Your task to perform on an android device: Show me popular videos on Youtube Image 0: 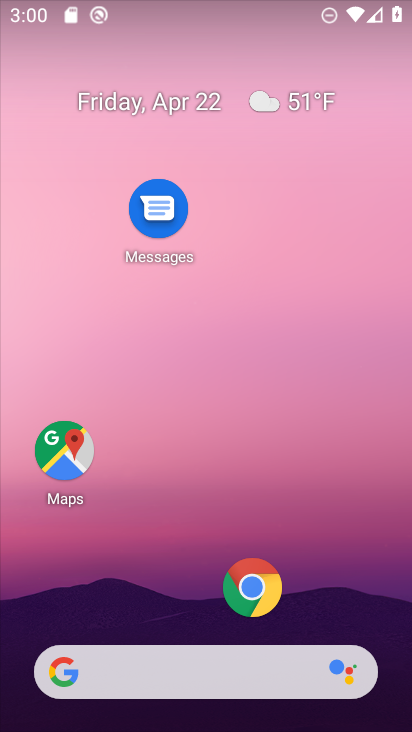
Step 0: drag from (199, 576) to (222, 157)
Your task to perform on an android device: Show me popular videos on Youtube Image 1: 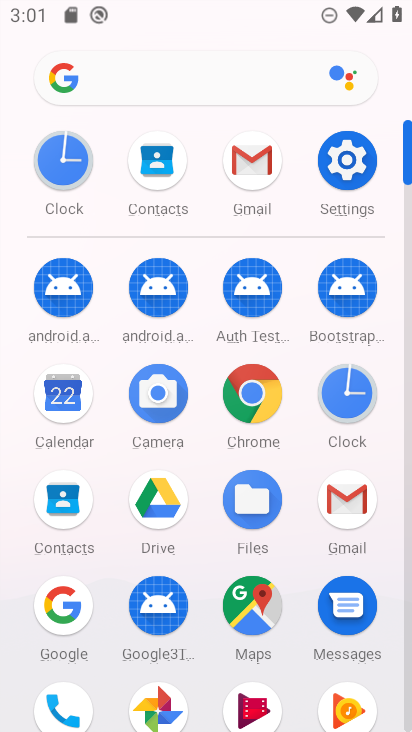
Step 1: drag from (209, 562) to (242, 192)
Your task to perform on an android device: Show me popular videos on Youtube Image 2: 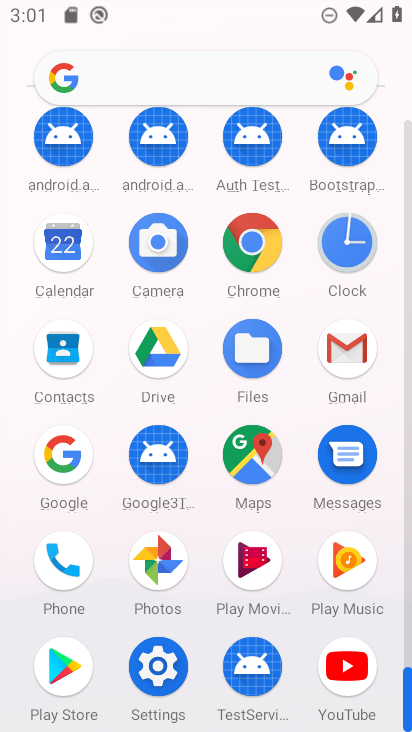
Step 2: click (334, 665)
Your task to perform on an android device: Show me popular videos on Youtube Image 3: 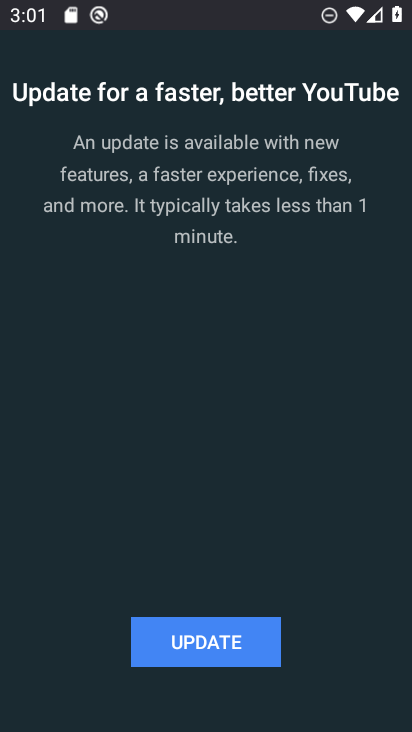
Step 3: click (207, 628)
Your task to perform on an android device: Show me popular videos on Youtube Image 4: 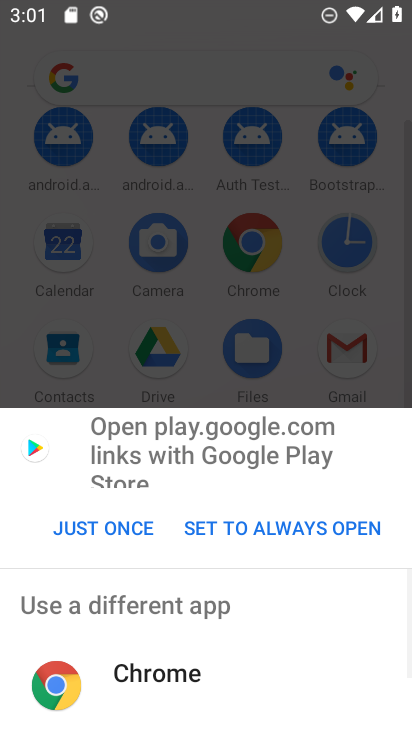
Step 4: click (103, 529)
Your task to perform on an android device: Show me popular videos on Youtube Image 5: 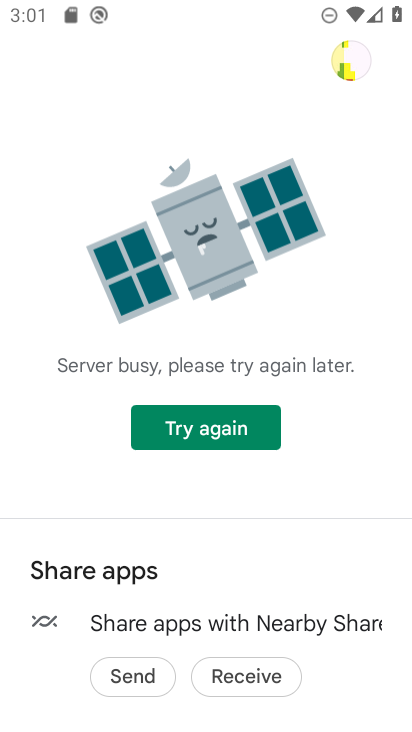
Step 5: task complete